Your task to perform on an android device: Open location settings Image 0: 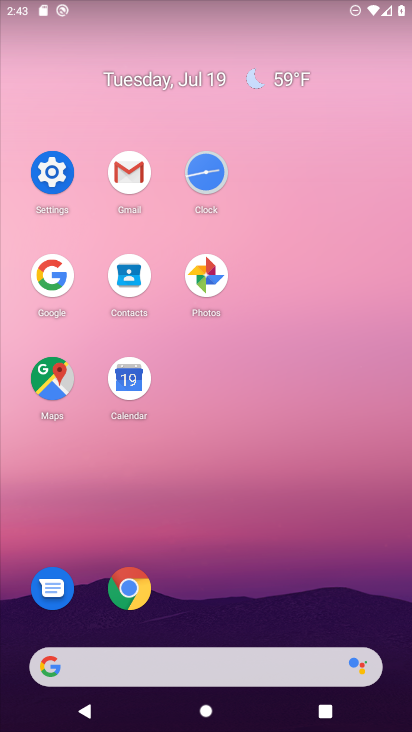
Step 0: click (69, 176)
Your task to perform on an android device: Open location settings Image 1: 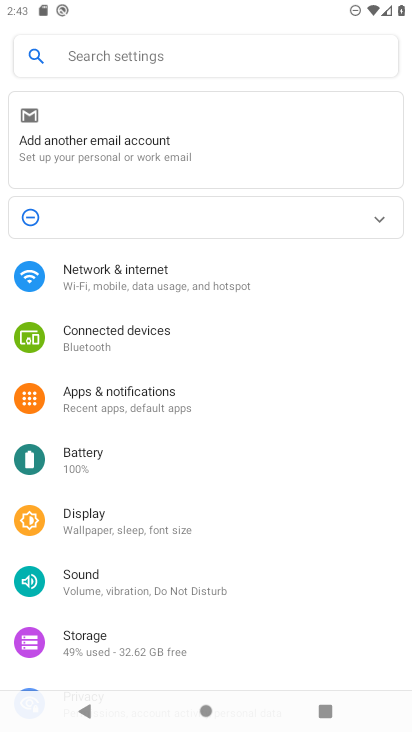
Step 1: drag from (206, 644) to (232, 316)
Your task to perform on an android device: Open location settings Image 2: 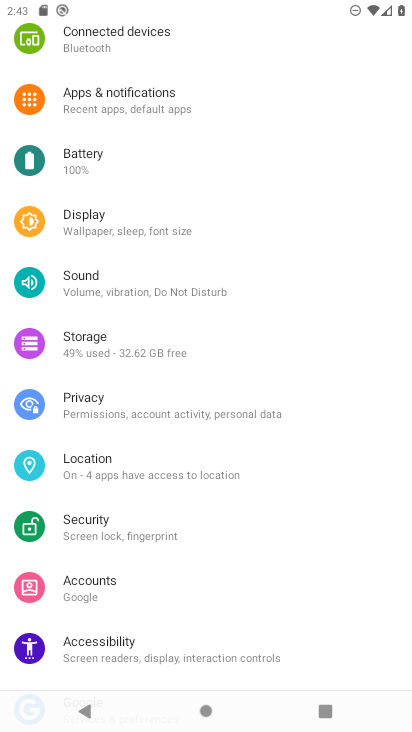
Step 2: click (162, 468)
Your task to perform on an android device: Open location settings Image 3: 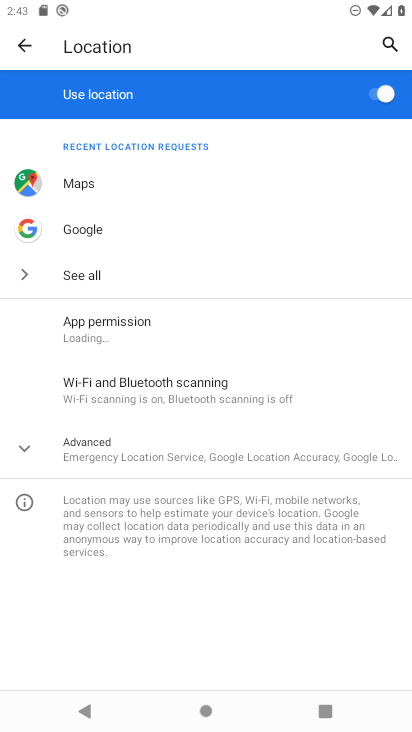
Step 3: task complete